Your task to perform on an android device: Play the last video I watched on Youtube Image 0: 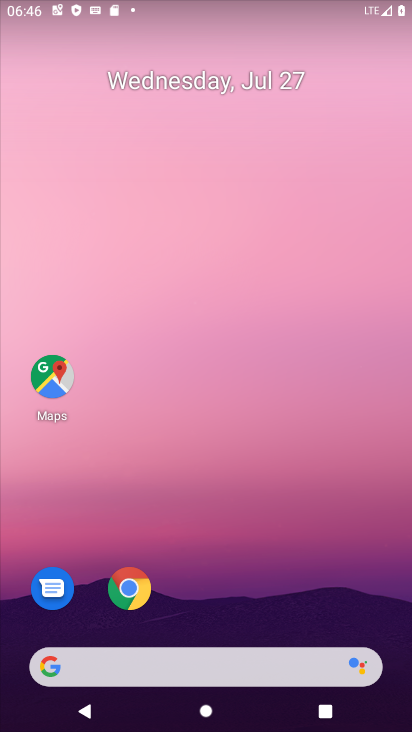
Step 0: drag from (293, 653) to (331, 19)
Your task to perform on an android device: Play the last video I watched on Youtube Image 1: 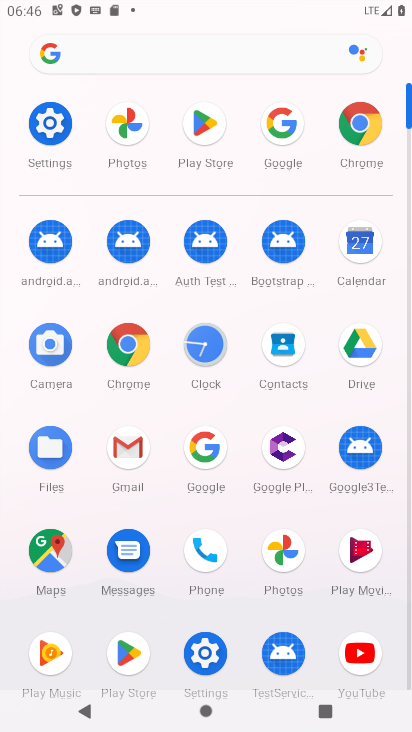
Step 1: click (363, 639)
Your task to perform on an android device: Play the last video I watched on Youtube Image 2: 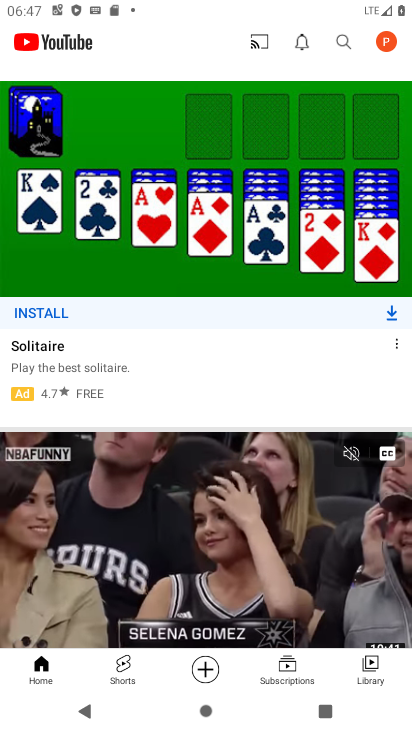
Step 2: click (372, 665)
Your task to perform on an android device: Play the last video I watched on Youtube Image 3: 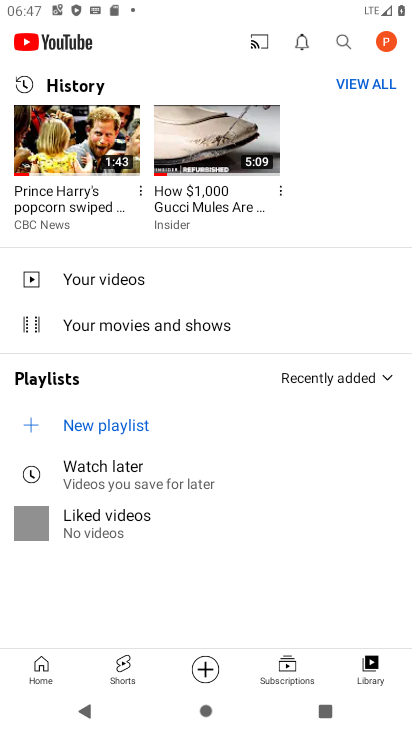
Step 3: click (82, 144)
Your task to perform on an android device: Play the last video I watched on Youtube Image 4: 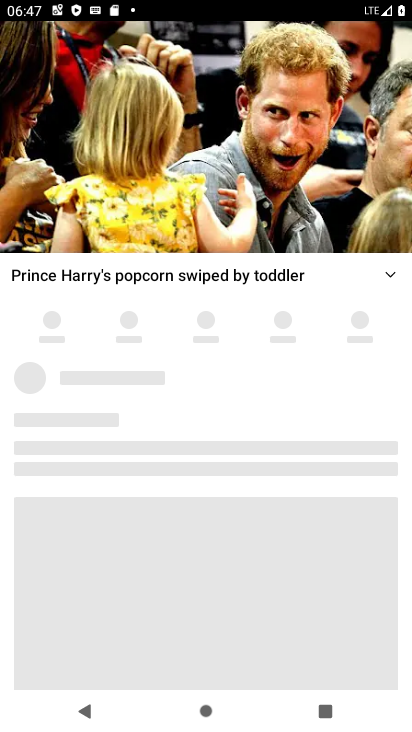
Step 4: task complete